Your task to perform on an android device: refresh tabs in the chrome app Image 0: 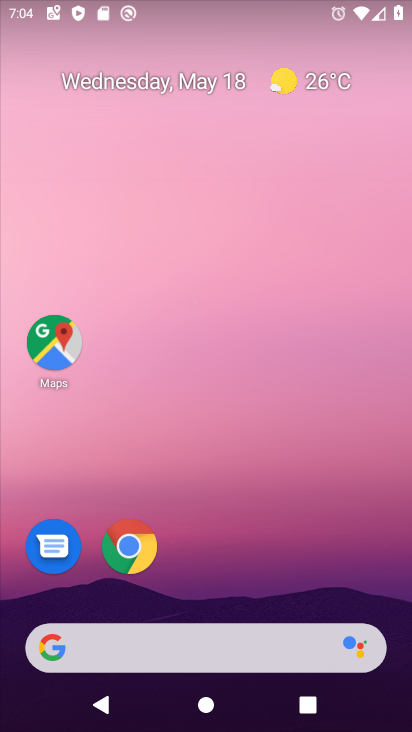
Step 0: drag from (403, 619) to (244, 19)
Your task to perform on an android device: refresh tabs in the chrome app Image 1: 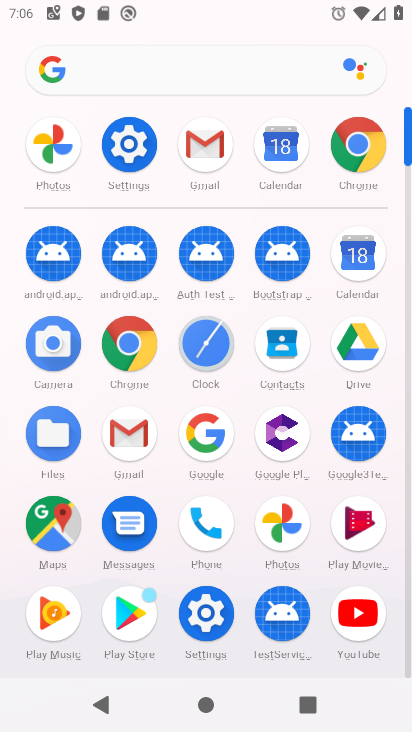
Step 1: click (379, 154)
Your task to perform on an android device: refresh tabs in the chrome app Image 2: 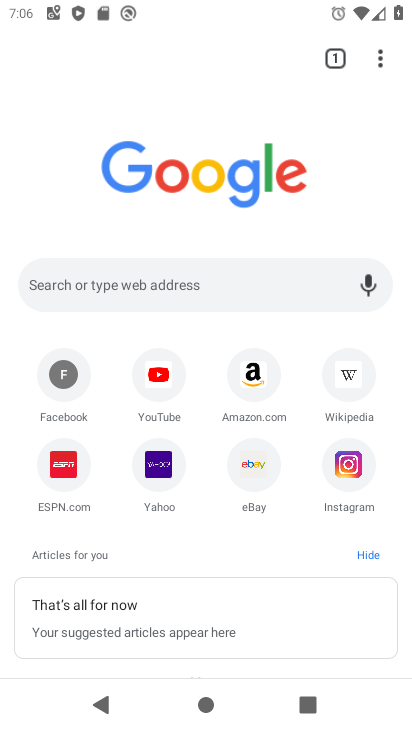
Step 2: click (376, 49)
Your task to perform on an android device: refresh tabs in the chrome app Image 3: 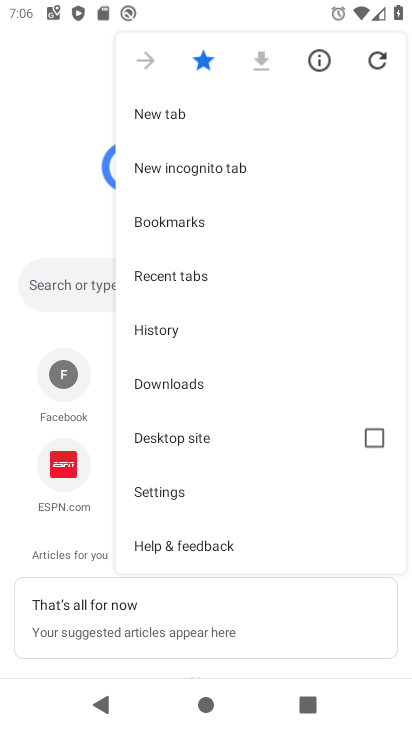
Step 3: click (384, 58)
Your task to perform on an android device: refresh tabs in the chrome app Image 4: 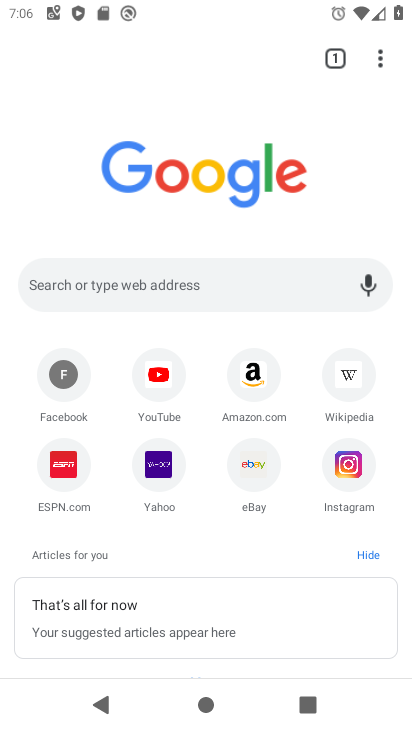
Step 4: task complete